Your task to perform on an android device: open app "Facebook Messenger" (install if not already installed) Image 0: 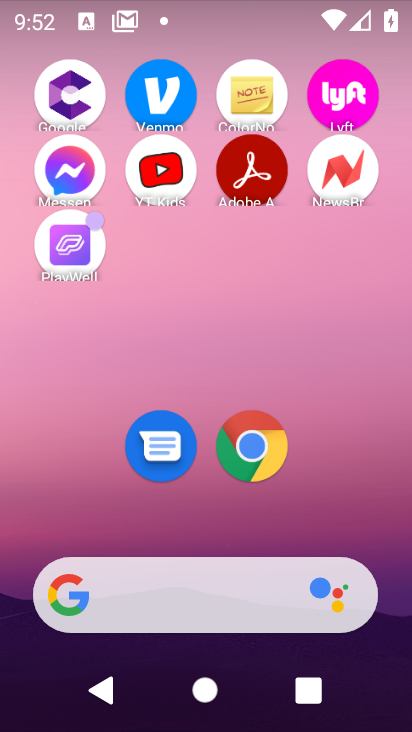
Step 0: drag from (201, 540) to (308, 4)
Your task to perform on an android device: open app "Facebook Messenger" (install if not already installed) Image 1: 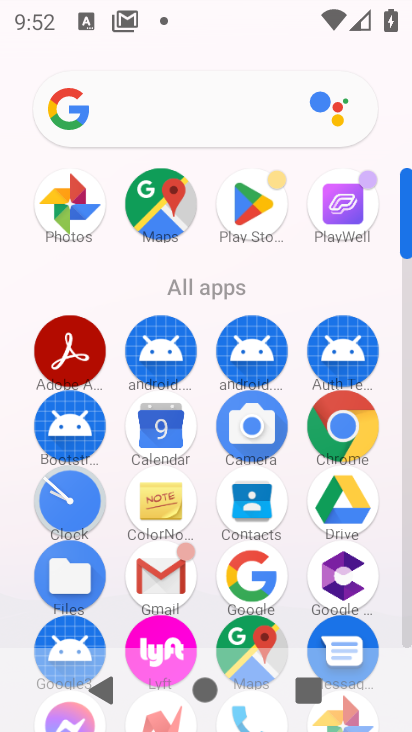
Step 1: drag from (180, 614) to (248, 160)
Your task to perform on an android device: open app "Facebook Messenger" (install if not already installed) Image 2: 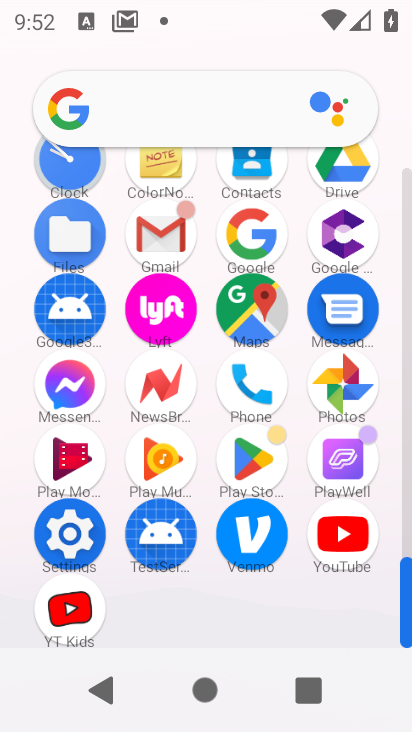
Step 2: click (253, 464)
Your task to perform on an android device: open app "Facebook Messenger" (install if not already installed) Image 3: 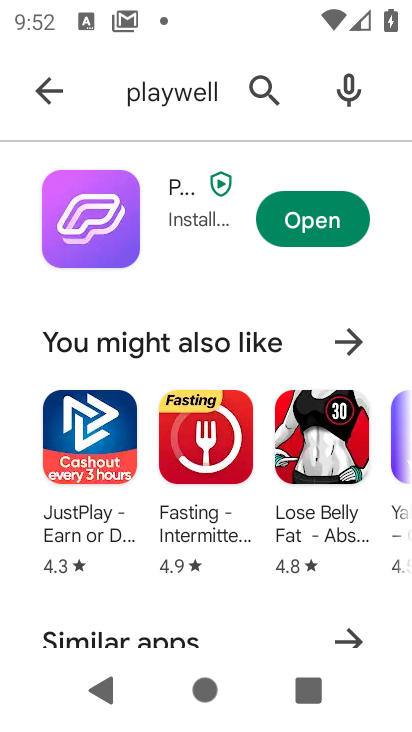
Step 3: click (243, 97)
Your task to perform on an android device: open app "Facebook Messenger" (install if not already installed) Image 4: 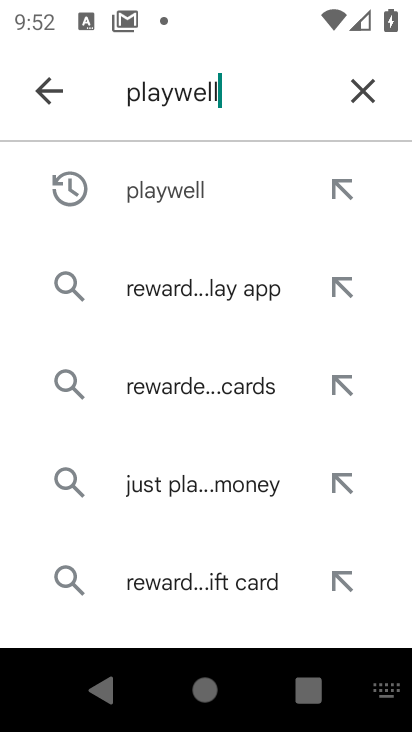
Step 4: click (355, 90)
Your task to perform on an android device: open app "Facebook Messenger" (install if not already installed) Image 5: 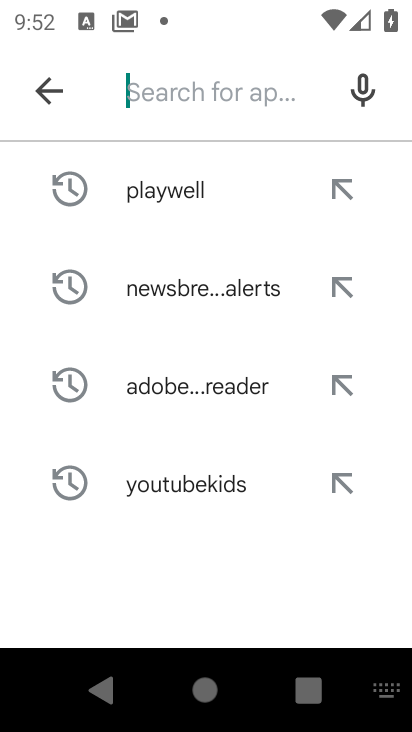
Step 5: click (145, 97)
Your task to perform on an android device: open app "Facebook Messenger" (install if not already installed) Image 6: 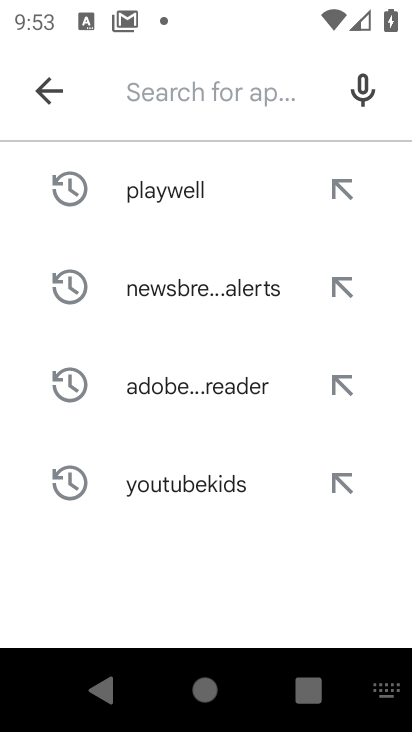
Step 6: type "facebook messenger"
Your task to perform on an android device: open app "Facebook Messenger" (install if not already installed) Image 7: 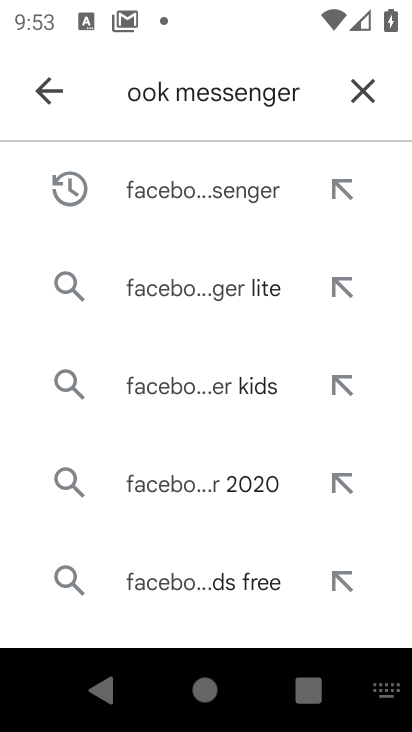
Step 7: click (157, 183)
Your task to perform on an android device: open app "Facebook Messenger" (install if not already installed) Image 8: 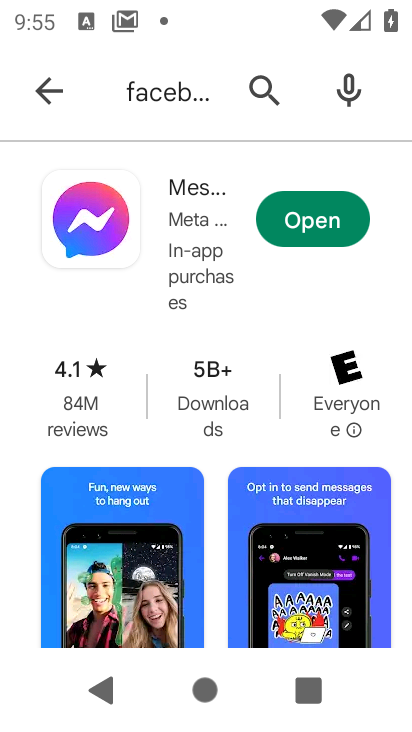
Step 8: click (291, 228)
Your task to perform on an android device: open app "Facebook Messenger" (install if not already installed) Image 9: 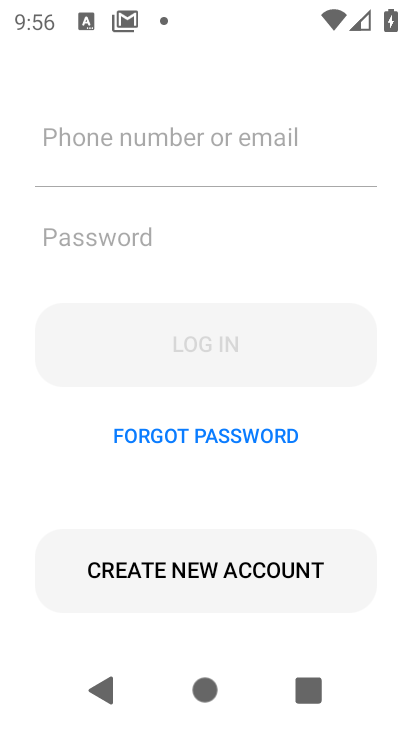
Step 9: task complete